Your task to perform on an android device: Check the news Image 0: 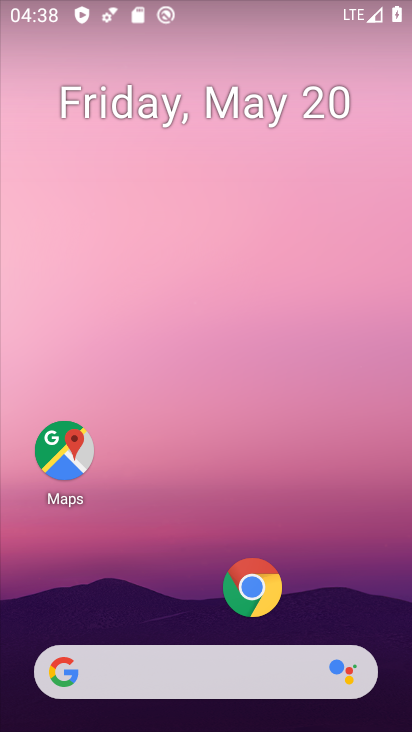
Step 0: click (185, 669)
Your task to perform on an android device: Check the news Image 1: 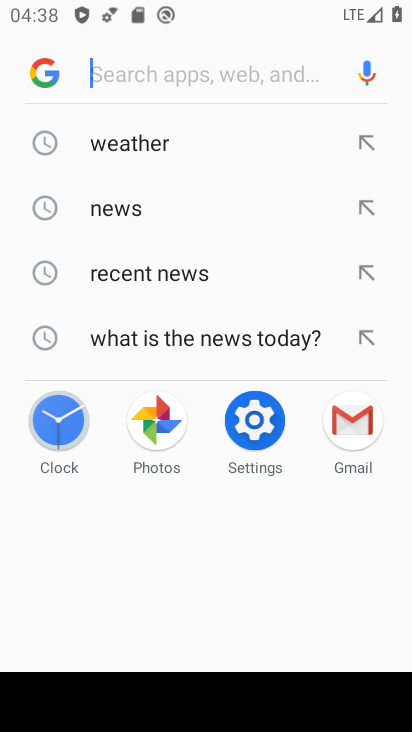
Step 1: click (138, 210)
Your task to perform on an android device: Check the news Image 2: 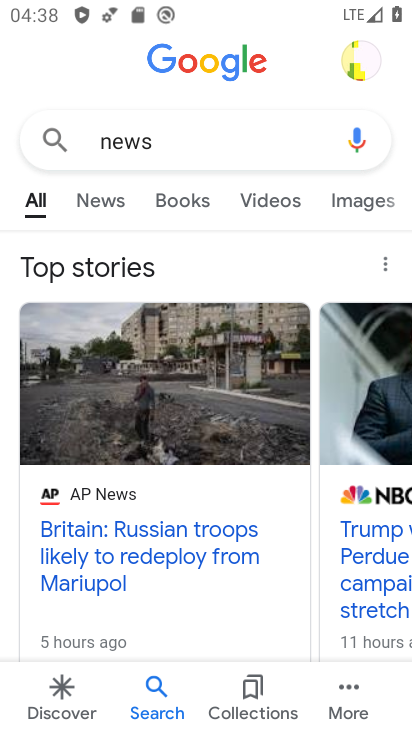
Step 2: task complete